Your task to perform on an android device: turn on improve location accuracy Image 0: 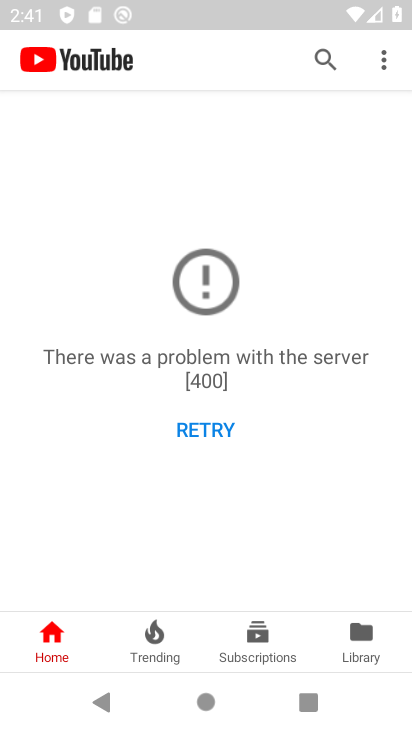
Step 0: press home button
Your task to perform on an android device: turn on improve location accuracy Image 1: 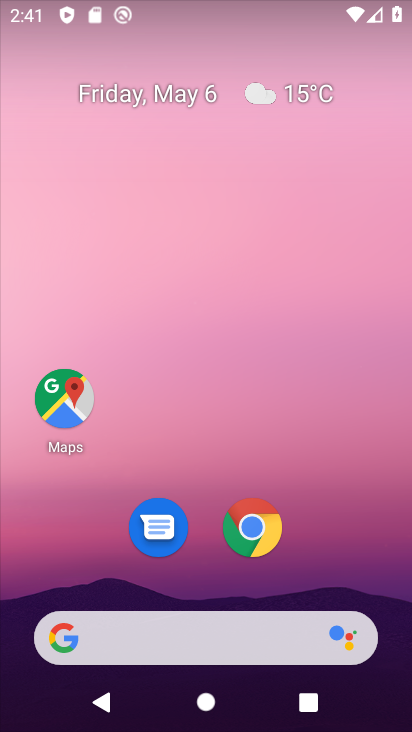
Step 1: drag from (145, 583) to (253, 253)
Your task to perform on an android device: turn on improve location accuracy Image 2: 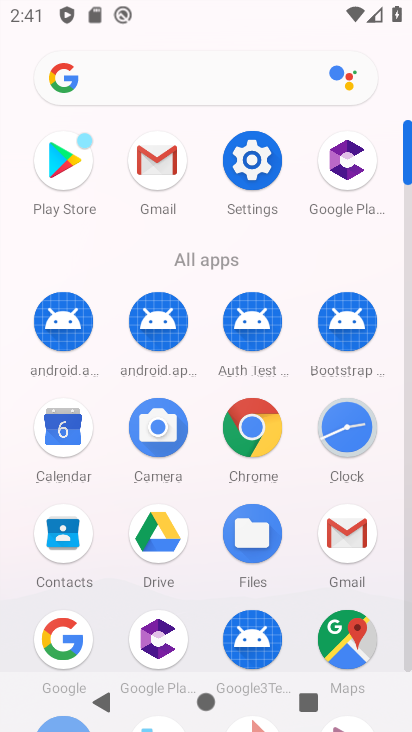
Step 2: click (254, 163)
Your task to perform on an android device: turn on improve location accuracy Image 3: 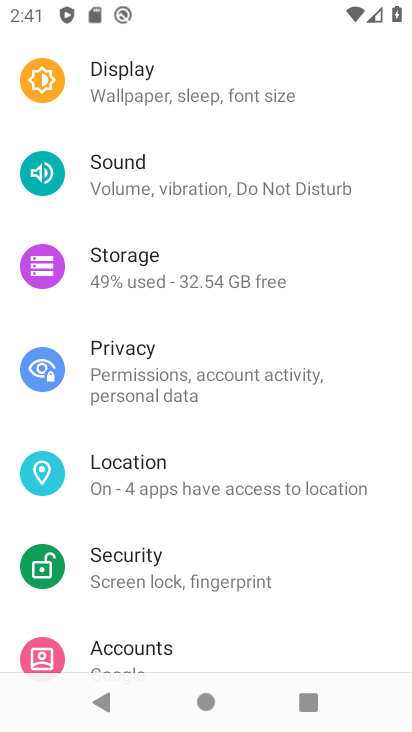
Step 3: click (152, 473)
Your task to perform on an android device: turn on improve location accuracy Image 4: 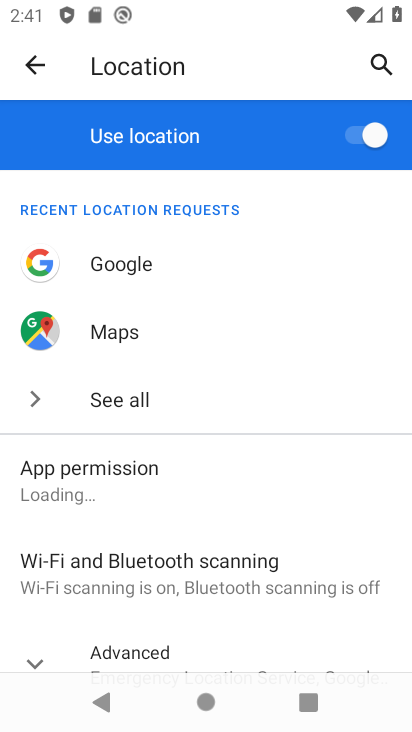
Step 4: drag from (167, 611) to (197, 350)
Your task to perform on an android device: turn on improve location accuracy Image 5: 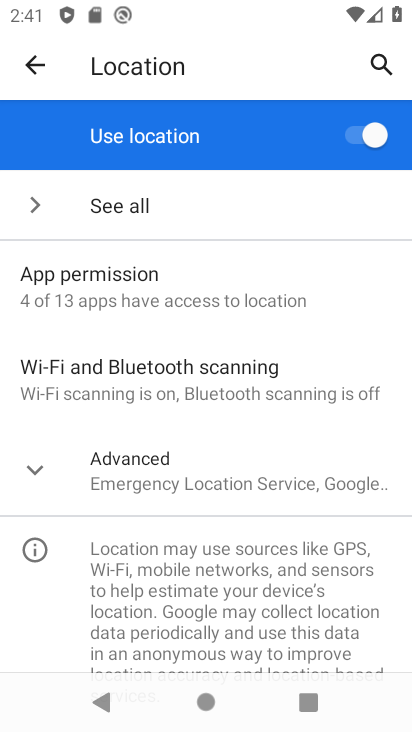
Step 5: click (46, 476)
Your task to perform on an android device: turn on improve location accuracy Image 6: 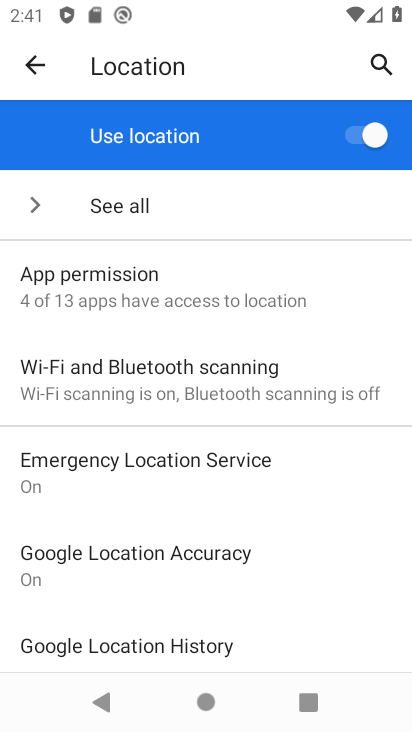
Step 6: click (144, 565)
Your task to perform on an android device: turn on improve location accuracy Image 7: 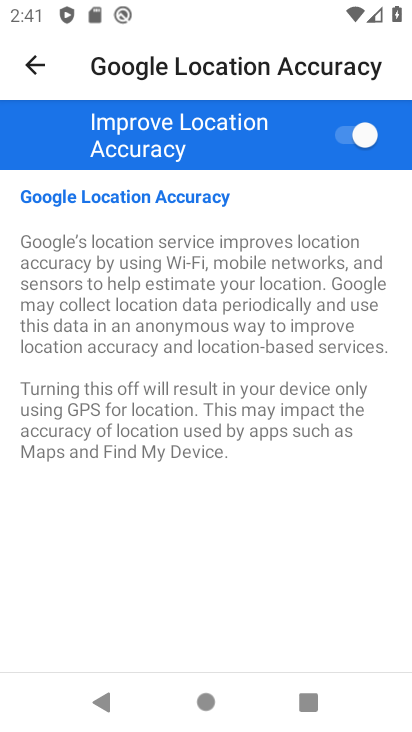
Step 7: task complete